Your task to perform on an android device: turn off airplane mode Image 0: 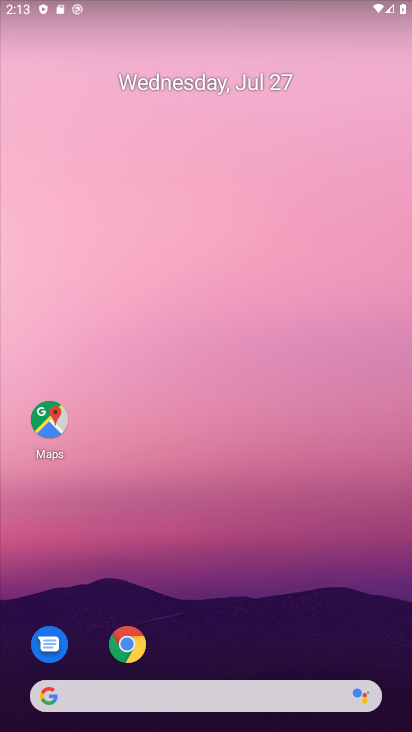
Step 0: drag from (269, 639) to (257, 234)
Your task to perform on an android device: turn off airplane mode Image 1: 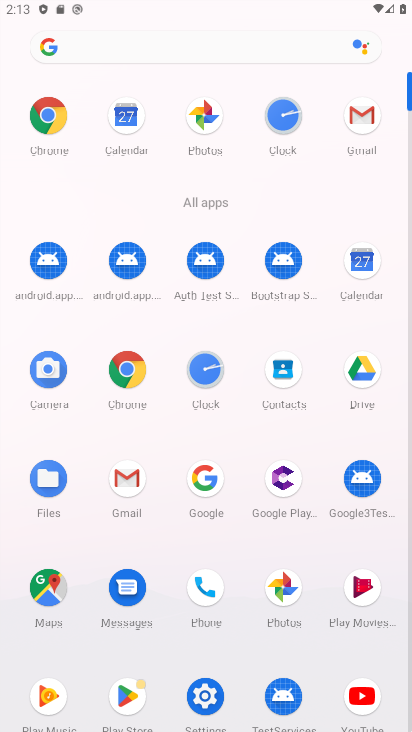
Step 1: click (209, 684)
Your task to perform on an android device: turn off airplane mode Image 2: 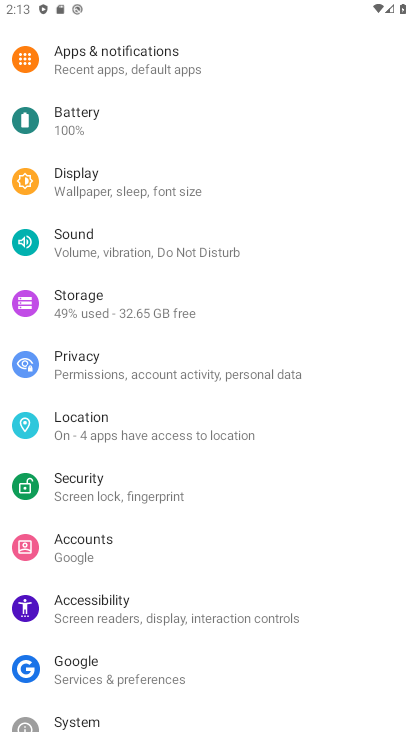
Step 2: drag from (221, 104) to (231, 480)
Your task to perform on an android device: turn off airplane mode Image 3: 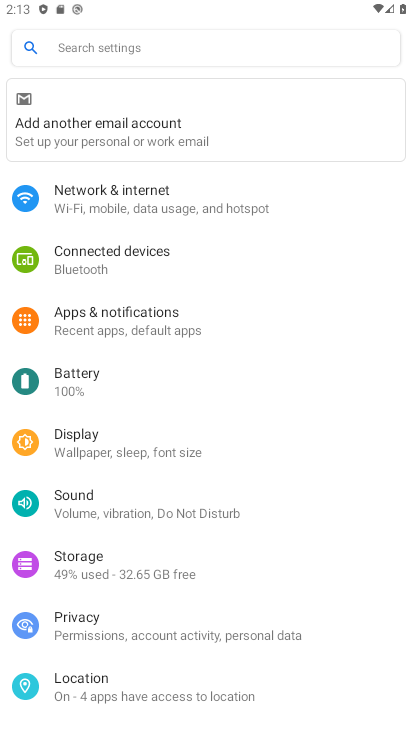
Step 3: click (248, 215)
Your task to perform on an android device: turn off airplane mode Image 4: 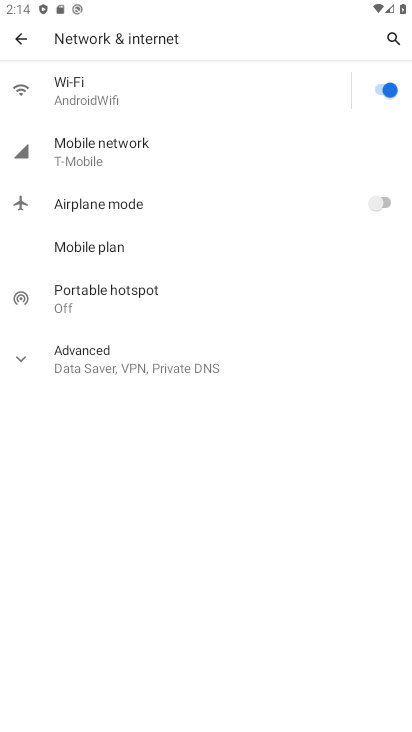
Step 4: task complete